Your task to perform on an android device: Show me the alarms in the clock app Image 0: 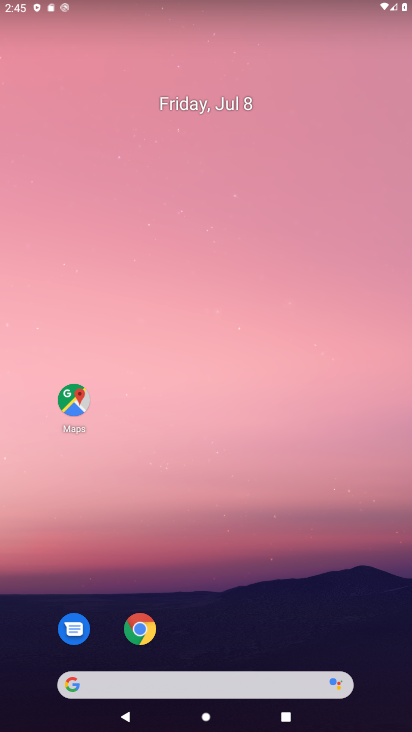
Step 0: click (134, 672)
Your task to perform on an android device: Show me the alarms in the clock app Image 1: 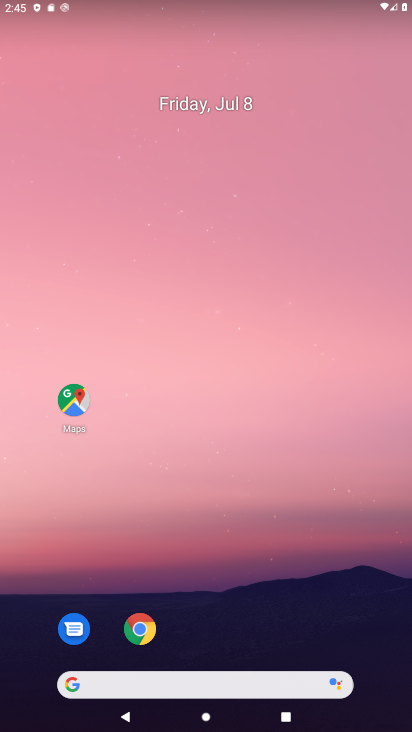
Step 1: click (134, 679)
Your task to perform on an android device: Show me the alarms in the clock app Image 2: 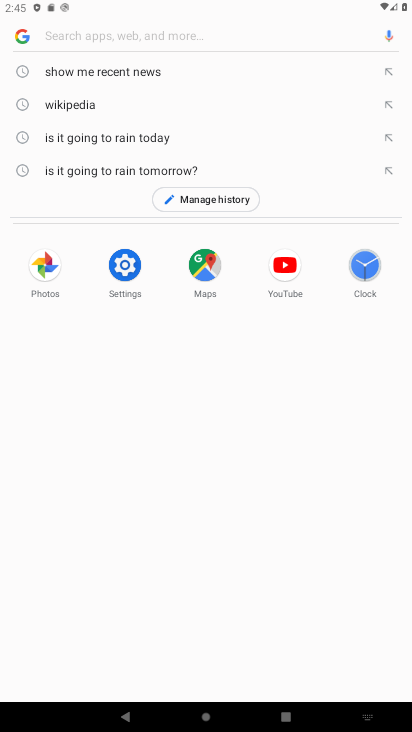
Step 2: press home button
Your task to perform on an android device: Show me the alarms in the clock app Image 3: 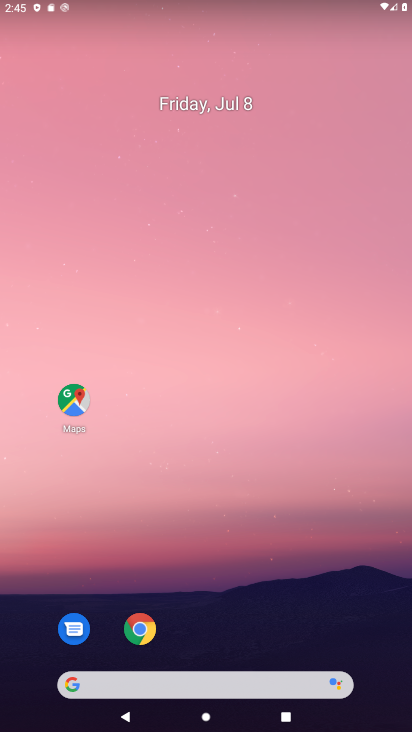
Step 3: drag from (145, 411) to (301, 37)
Your task to perform on an android device: Show me the alarms in the clock app Image 4: 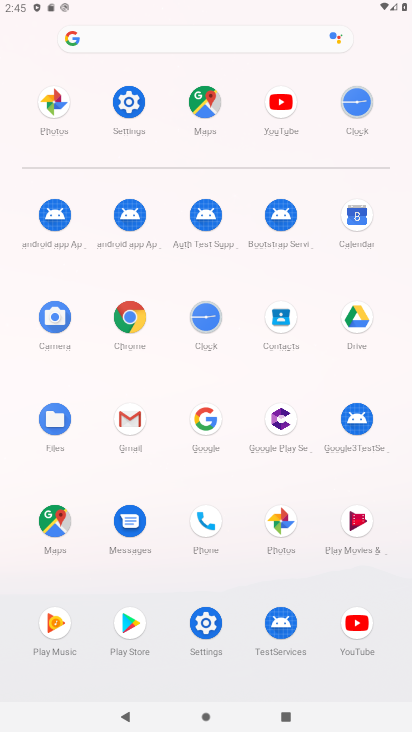
Step 4: click (202, 321)
Your task to perform on an android device: Show me the alarms in the clock app Image 5: 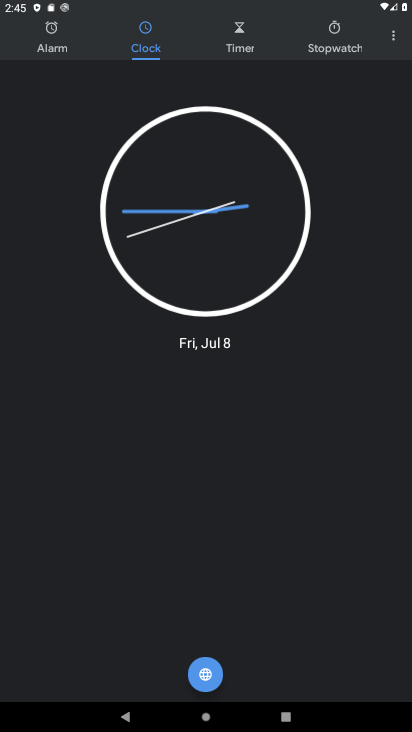
Step 5: click (45, 38)
Your task to perform on an android device: Show me the alarms in the clock app Image 6: 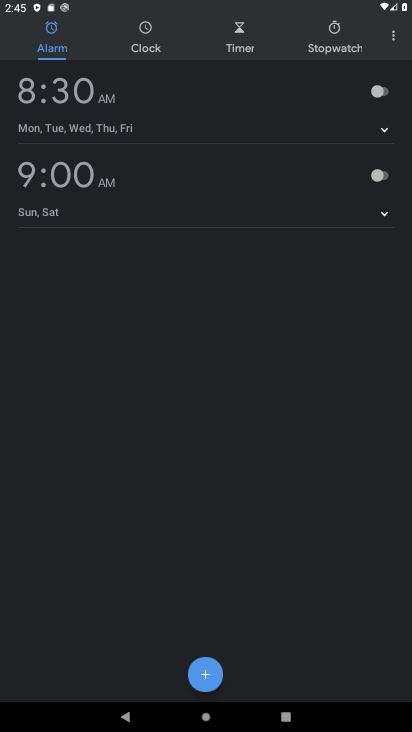
Step 6: click (380, 99)
Your task to perform on an android device: Show me the alarms in the clock app Image 7: 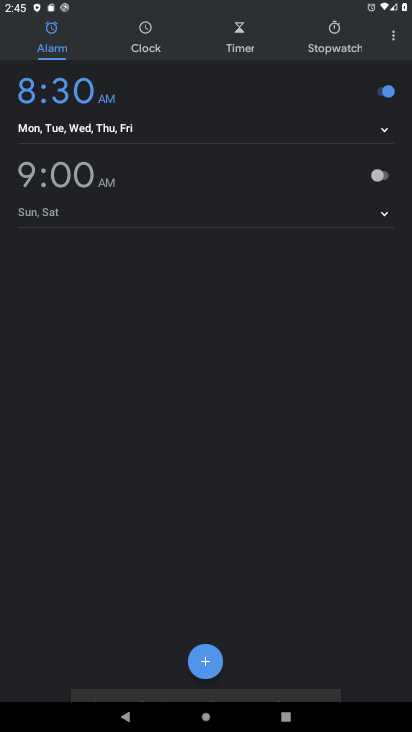
Step 7: click (383, 95)
Your task to perform on an android device: Show me the alarms in the clock app Image 8: 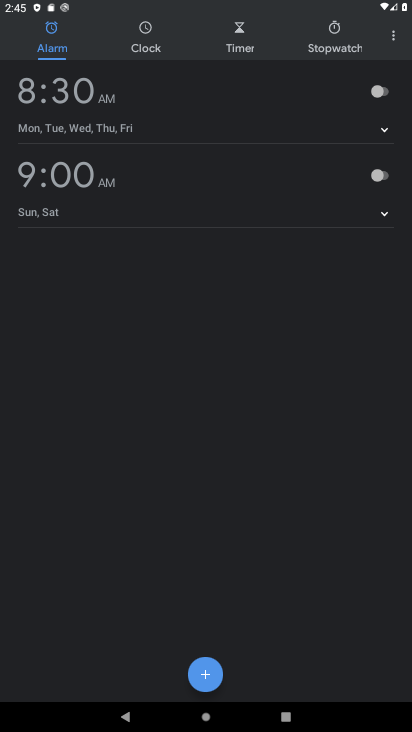
Step 8: task complete